Your task to perform on an android device: refresh tabs in the chrome app Image 0: 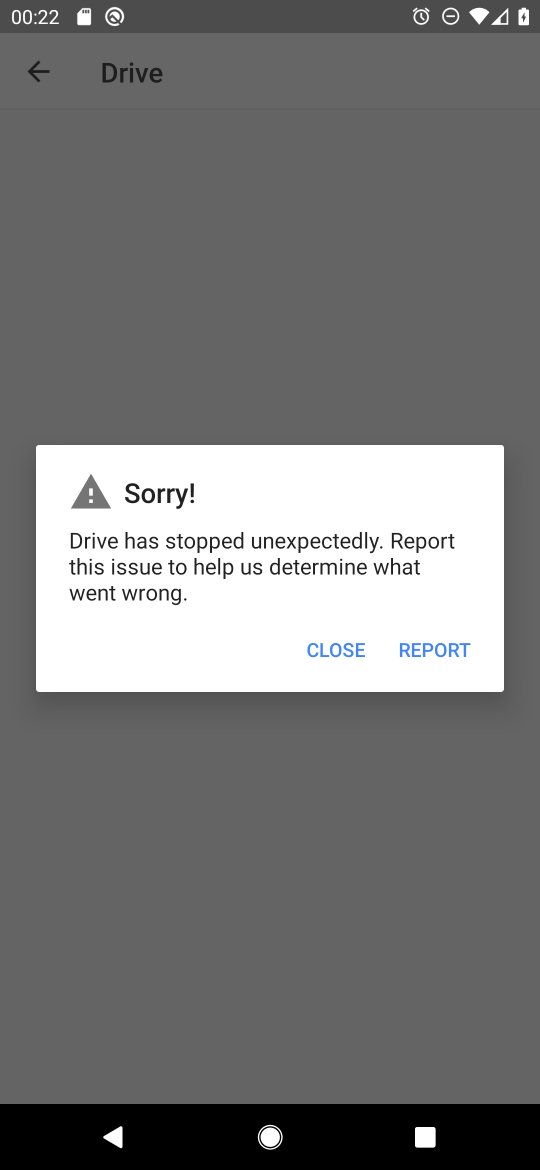
Step 0: press home button
Your task to perform on an android device: refresh tabs in the chrome app Image 1: 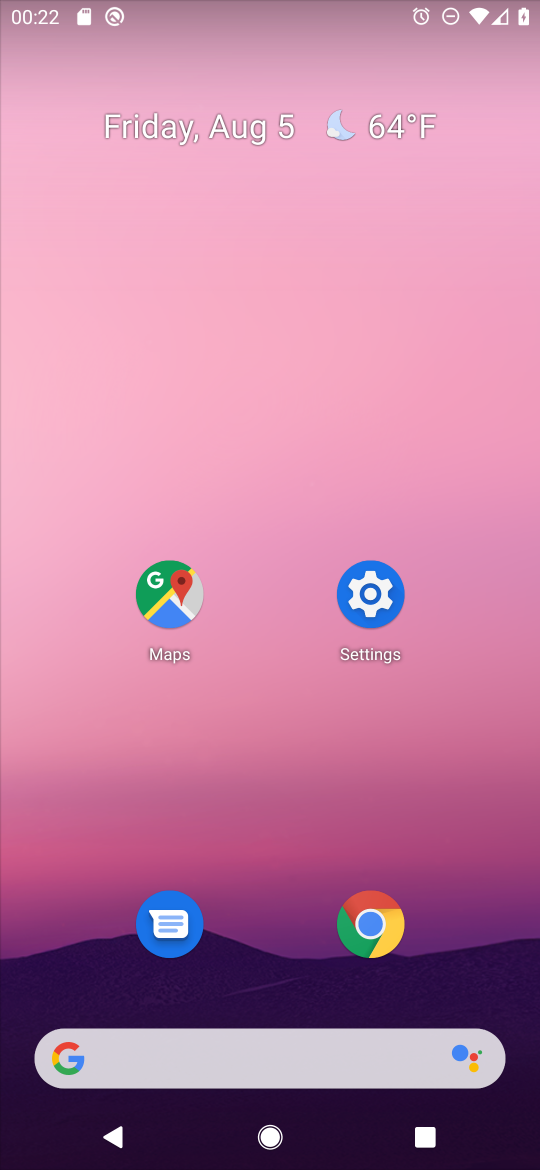
Step 1: click (373, 921)
Your task to perform on an android device: refresh tabs in the chrome app Image 2: 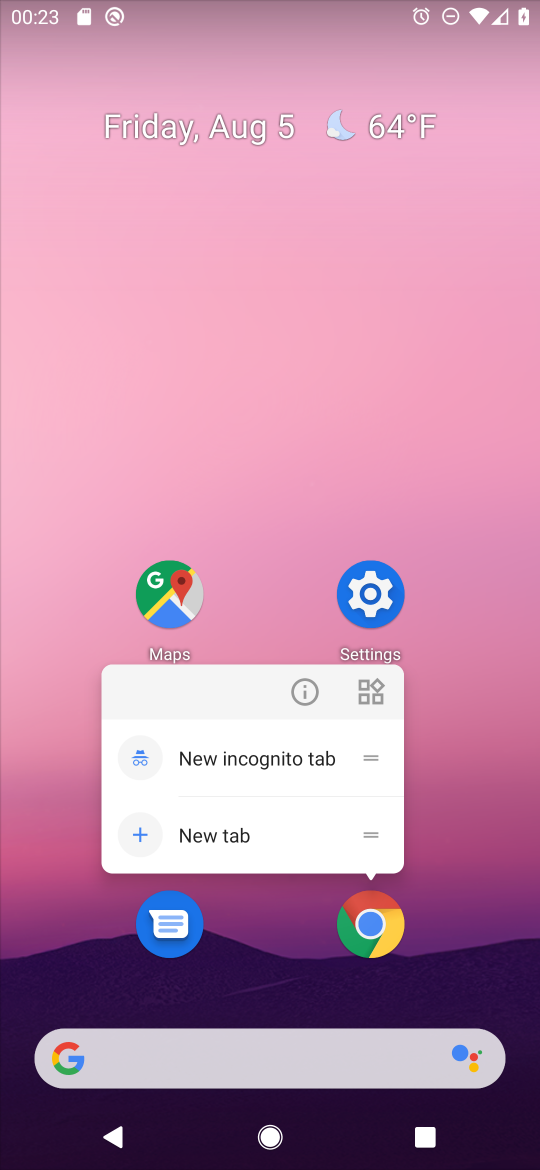
Step 2: click (373, 921)
Your task to perform on an android device: refresh tabs in the chrome app Image 3: 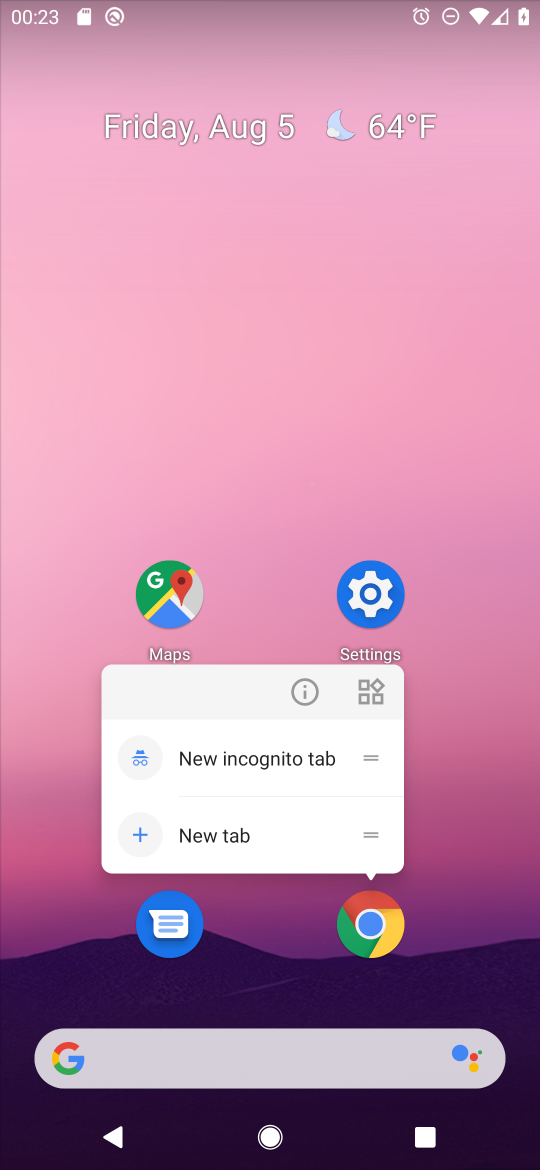
Step 3: click (373, 922)
Your task to perform on an android device: refresh tabs in the chrome app Image 4: 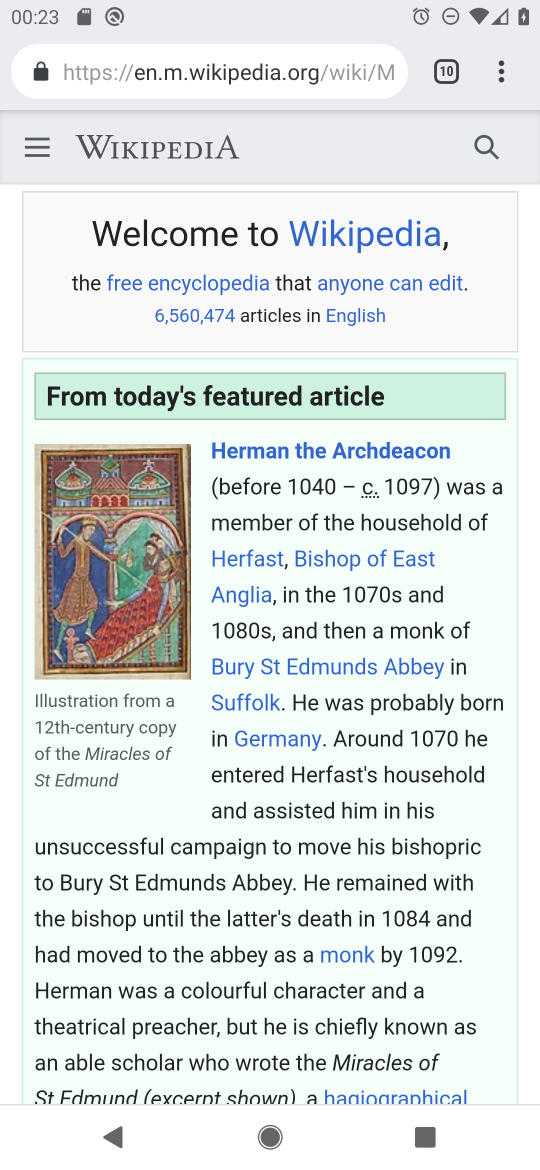
Step 4: click (501, 92)
Your task to perform on an android device: refresh tabs in the chrome app Image 5: 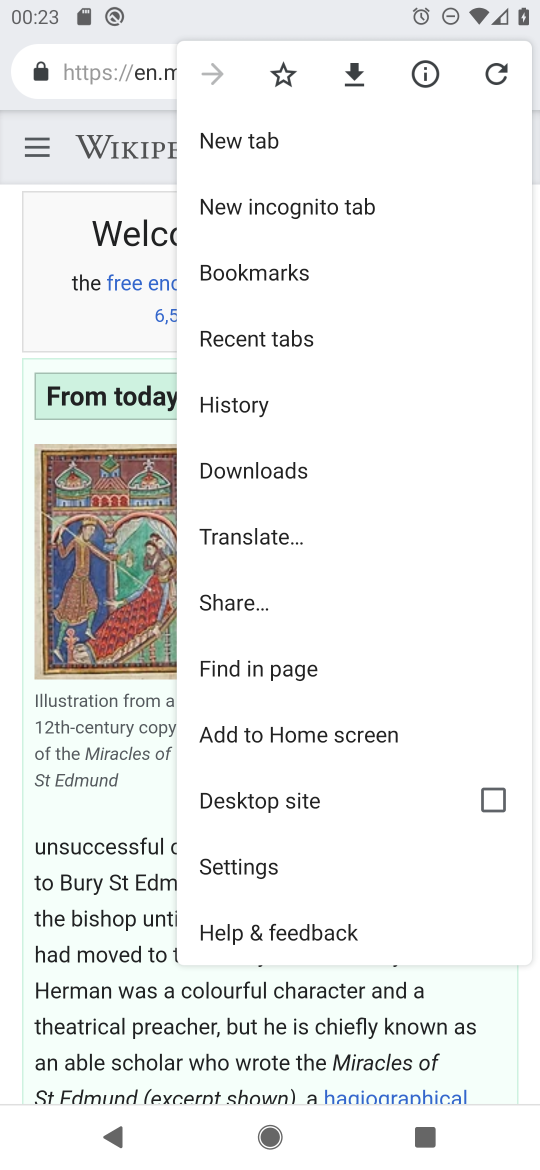
Step 5: click (492, 71)
Your task to perform on an android device: refresh tabs in the chrome app Image 6: 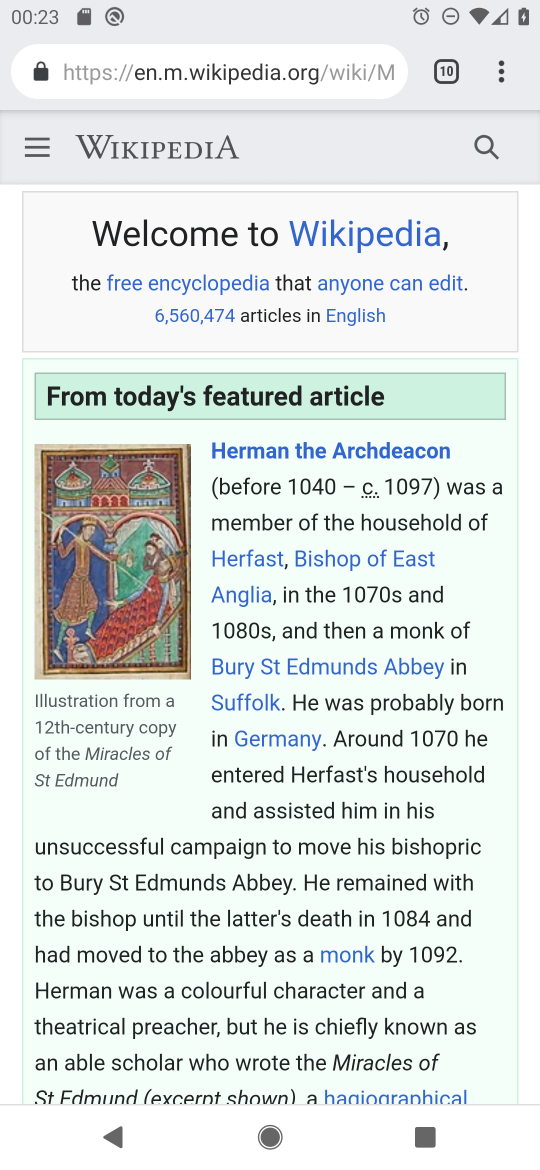
Step 6: task complete